Your task to perform on an android device: Open wifi settings Image 0: 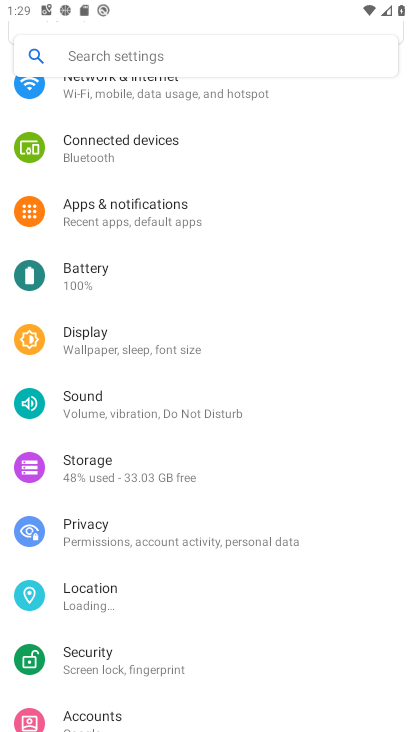
Step 0: press home button
Your task to perform on an android device: Open wifi settings Image 1: 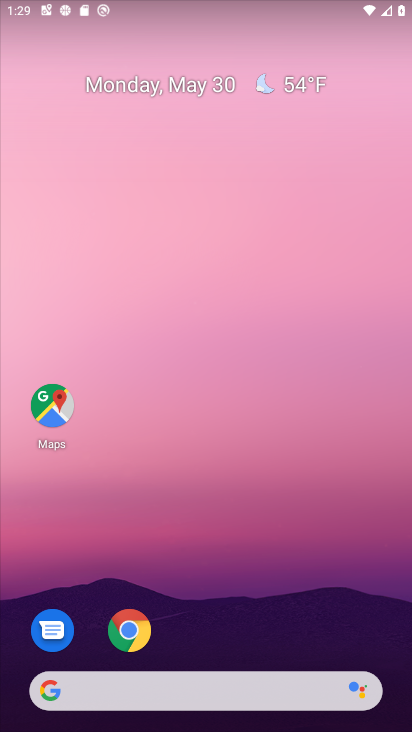
Step 1: drag from (177, 681) to (334, 202)
Your task to perform on an android device: Open wifi settings Image 2: 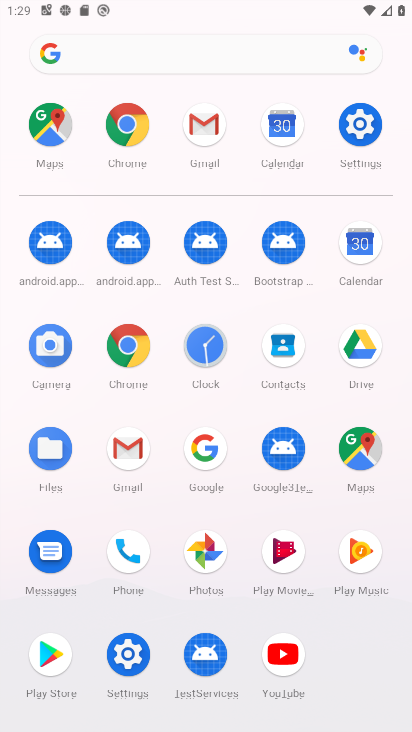
Step 2: click (369, 127)
Your task to perform on an android device: Open wifi settings Image 3: 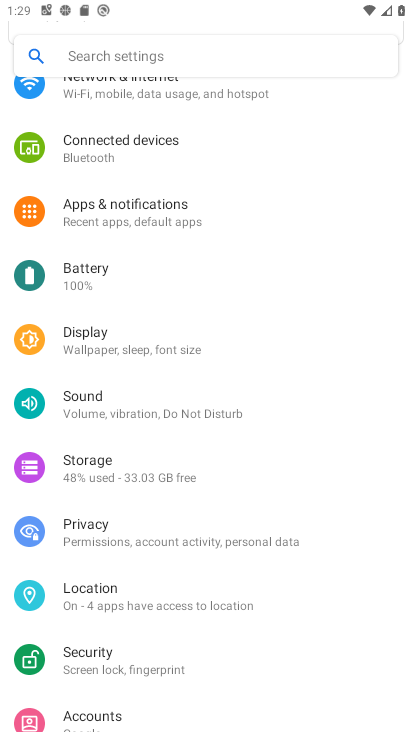
Step 3: drag from (289, 180) to (210, 672)
Your task to perform on an android device: Open wifi settings Image 4: 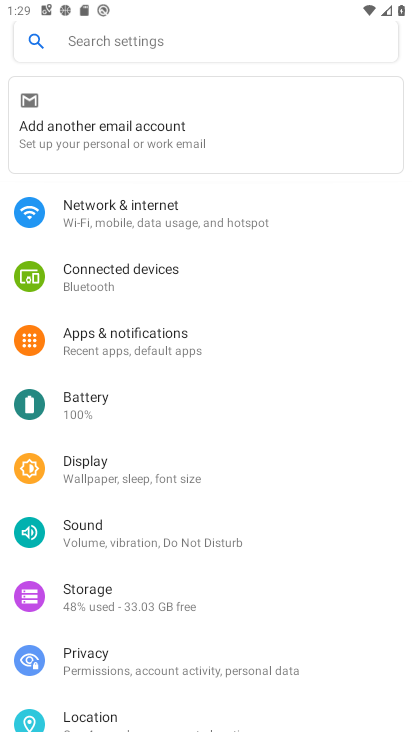
Step 4: click (105, 228)
Your task to perform on an android device: Open wifi settings Image 5: 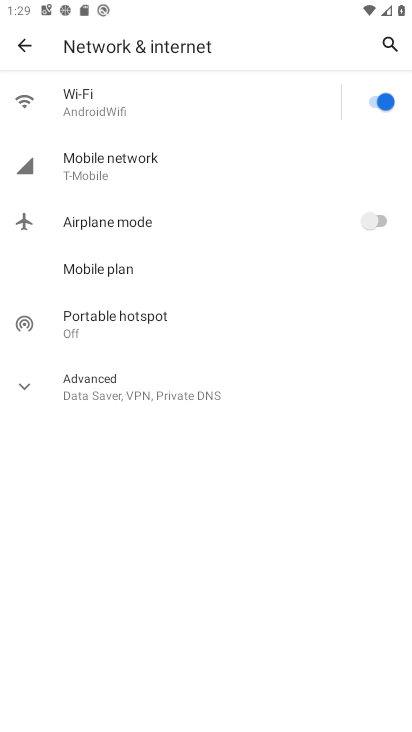
Step 5: click (117, 108)
Your task to perform on an android device: Open wifi settings Image 6: 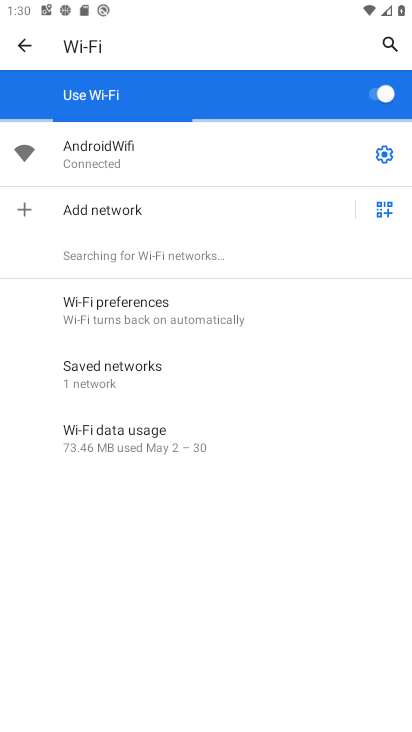
Step 6: task complete